Your task to perform on an android device: Show the shopping cart on bestbuy. Search for "rayovac triple a" on bestbuy, select the first entry, and add it to the cart. Image 0: 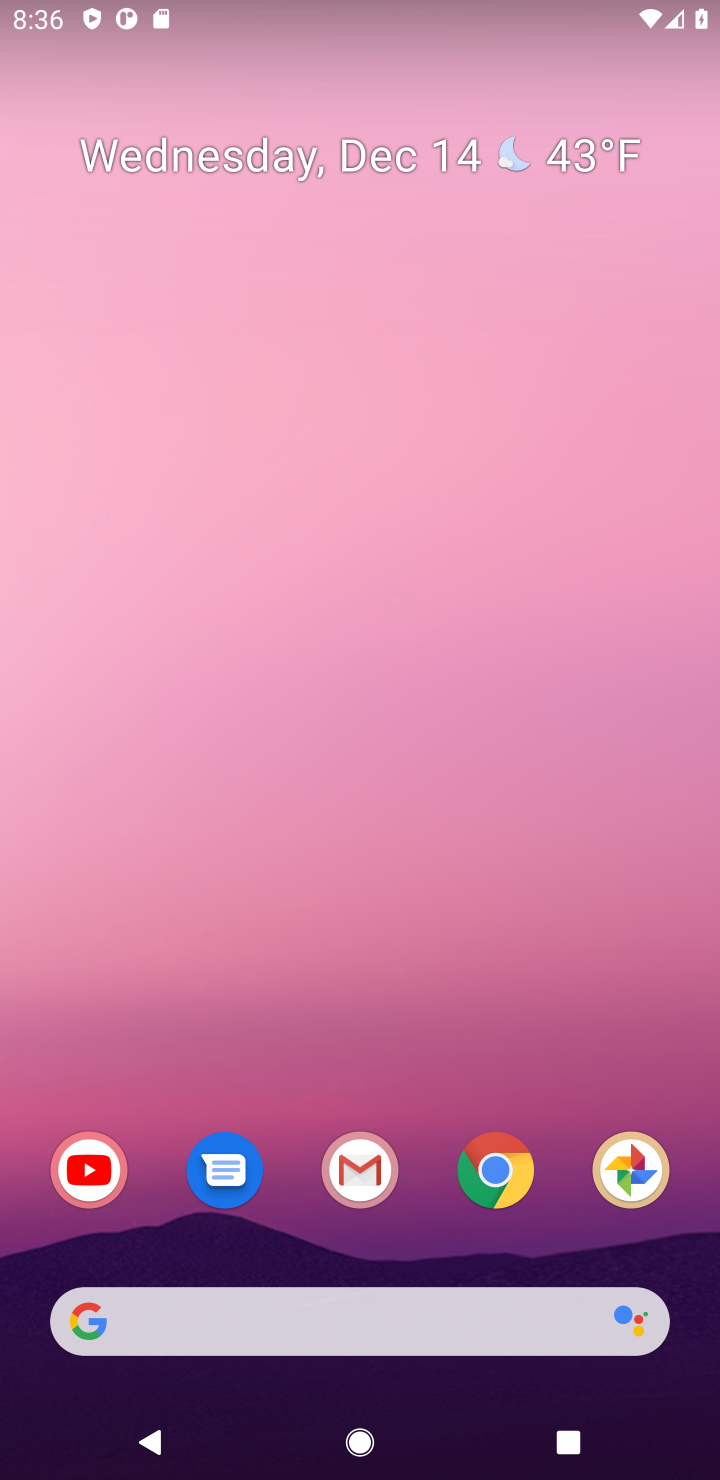
Step 0: click (495, 1181)
Your task to perform on an android device: Show the shopping cart on bestbuy. Search for "rayovac triple a" on bestbuy, select the first entry, and add it to the cart. Image 1: 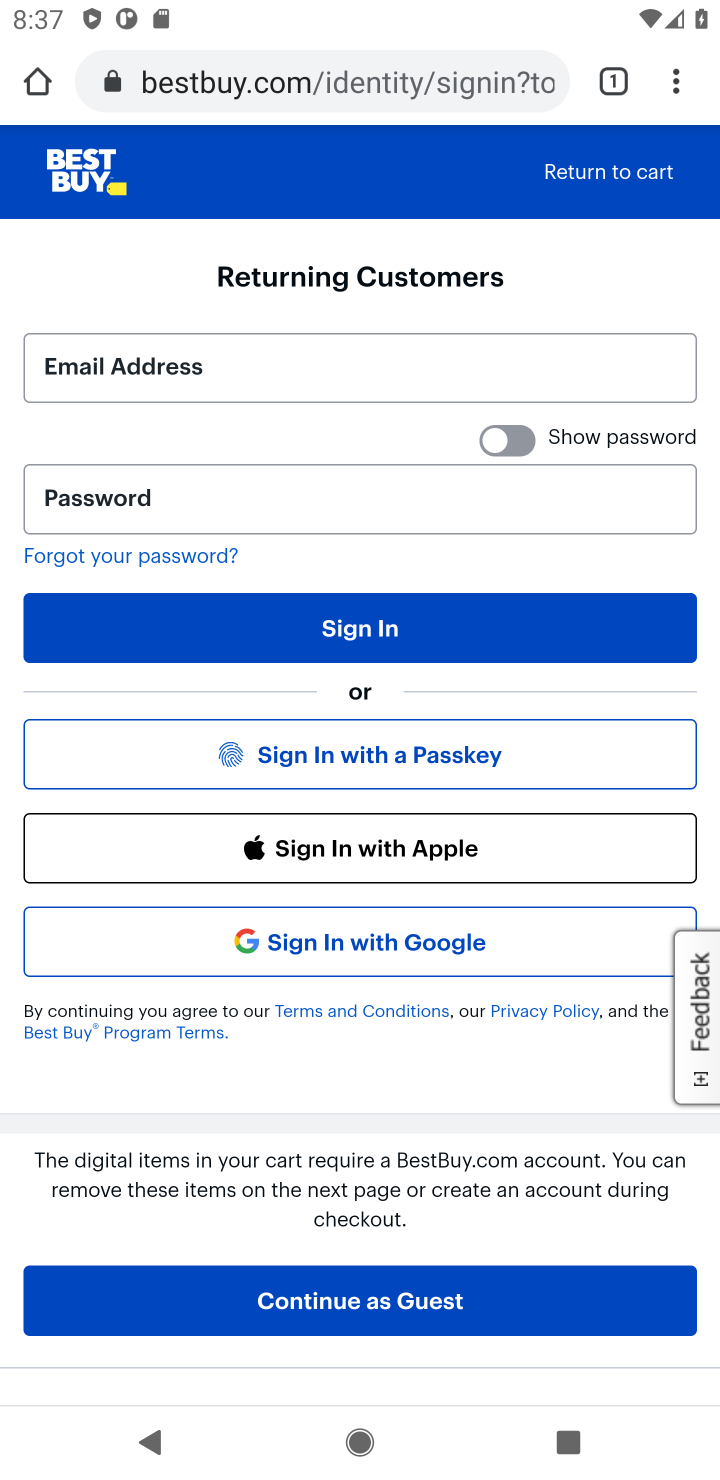
Step 1: task complete